Your task to perform on an android device: Open calendar and show me the first week of next month Image 0: 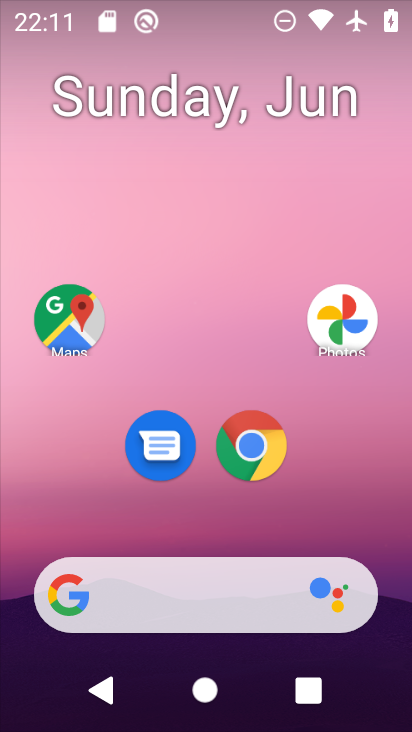
Step 0: press home button
Your task to perform on an android device: Open calendar and show me the first week of next month Image 1: 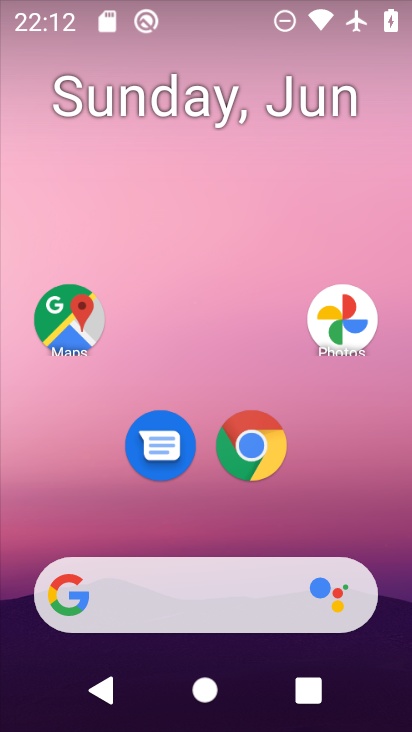
Step 1: drag from (272, 522) to (281, 151)
Your task to perform on an android device: Open calendar and show me the first week of next month Image 2: 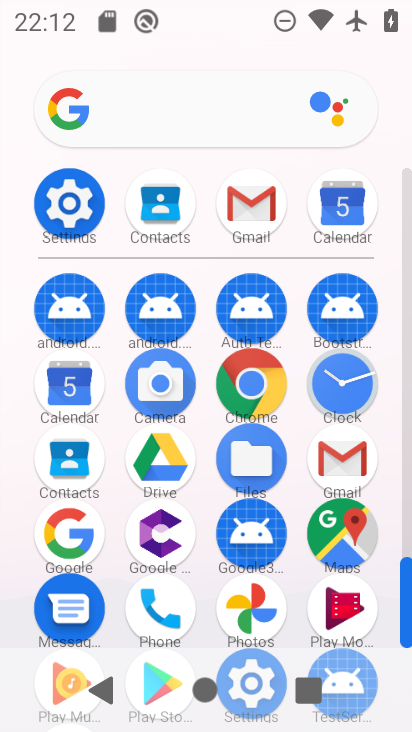
Step 2: click (72, 400)
Your task to perform on an android device: Open calendar and show me the first week of next month Image 3: 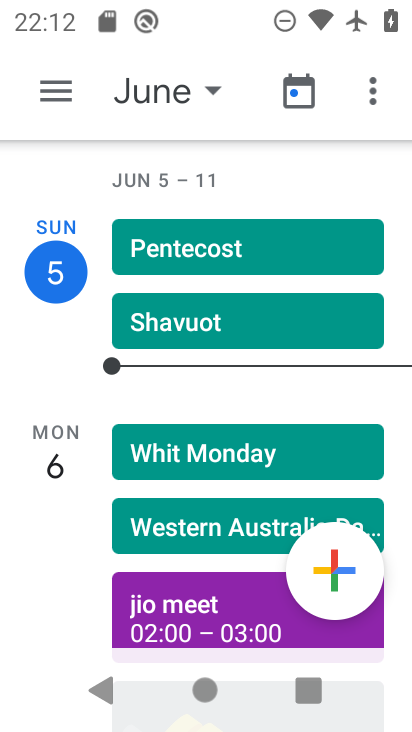
Step 3: click (210, 89)
Your task to perform on an android device: Open calendar and show me the first week of next month Image 4: 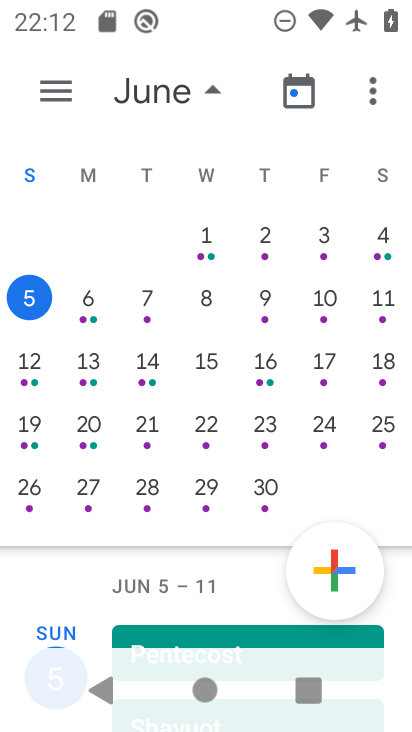
Step 4: drag from (344, 339) to (1, 303)
Your task to perform on an android device: Open calendar and show me the first week of next month Image 5: 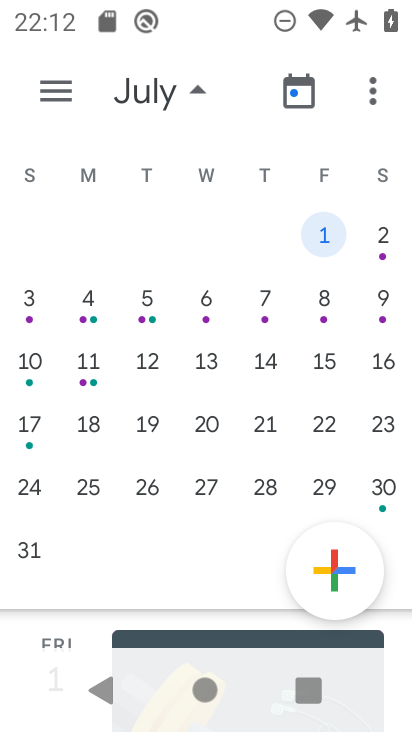
Step 5: click (386, 240)
Your task to perform on an android device: Open calendar and show me the first week of next month Image 6: 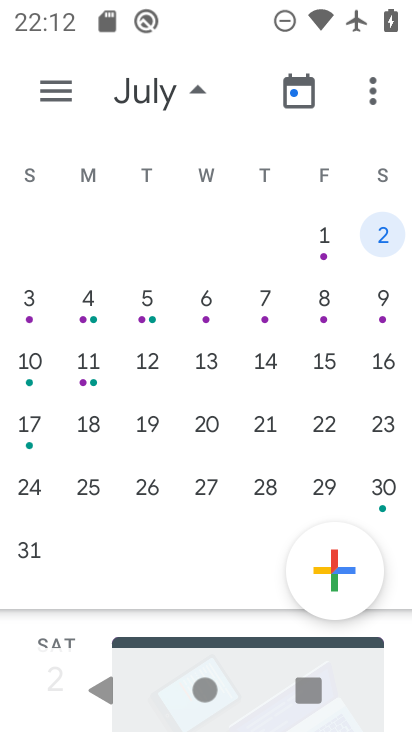
Step 6: click (226, 106)
Your task to perform on an android device: Open calendar and show me the first week of next month Image 7: 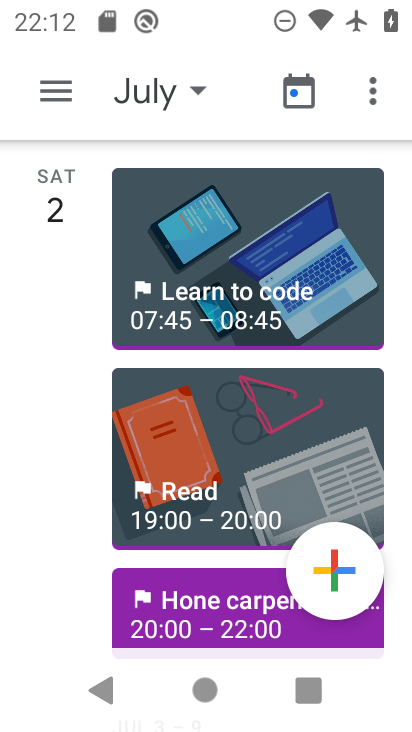
Step 7: task complete